Your task to perform on an android device: Open Chrome and go to settings Image 0: 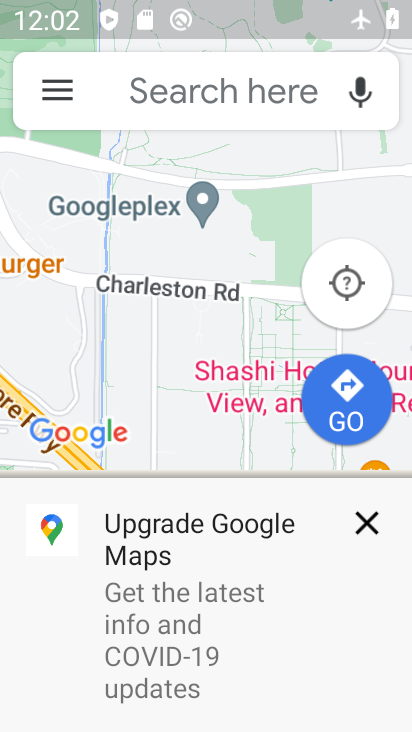
Step 0: press home button
Your task to perform on an android device: Open Chrome and go to settings Image 1: 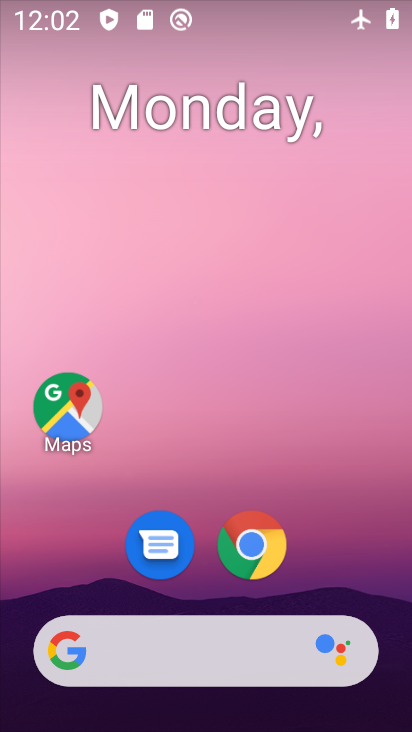
Step 1: drag from (367, 581) to (371, 176)
Your task to perform on an android device: Open Chrome and go to settings Image 2: 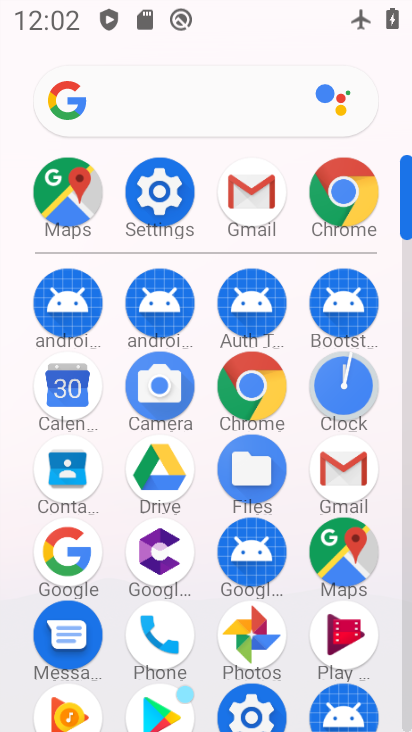
Step 2: click (273, 395)
Your task to perform on an android device: Open Chrome and go to settings Image 3: 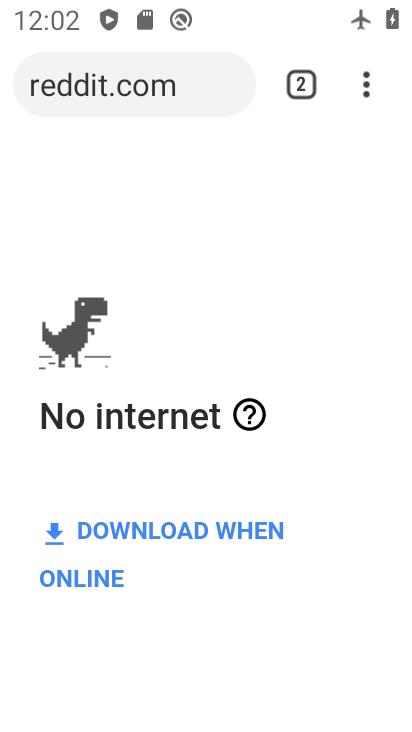
Step 3: click (361, 91)
Your task to perform on an android device: Open Chrome and go to settings Image 4: 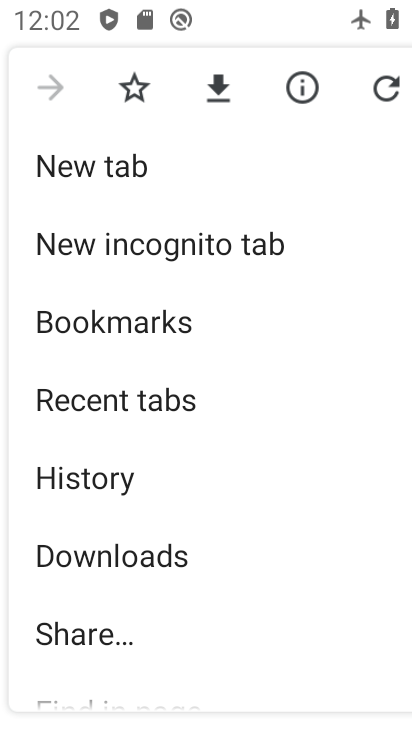
Step 4: drag from (344, 467) to (347, 406)
Your task to perform on an android device: Open Chrome and go to settings Image 5: 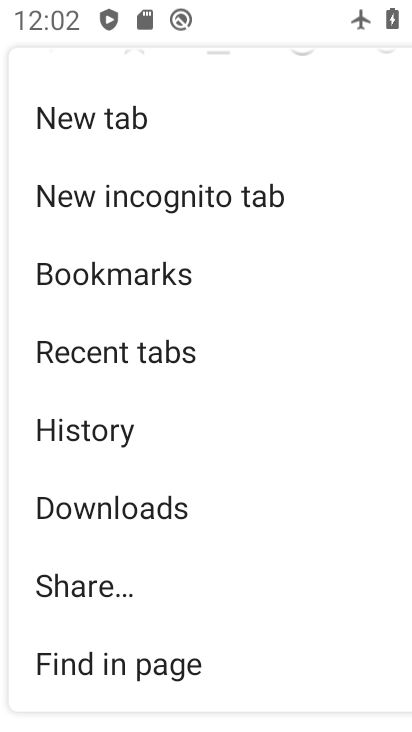
Step 5: drag from (331, 538) to (340, 438)
Your task to perform on an android device: Open Chrome and go to settings Image 6: 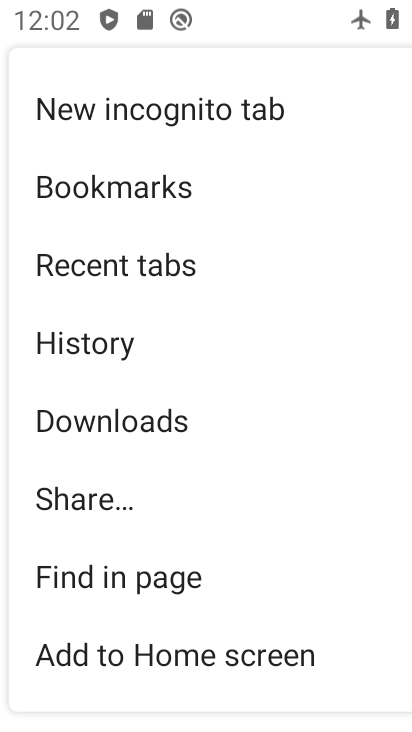
Step 6: drag from (321, 591) to (332, 449)
Your task to perform on an android device: Open Chrome and go to settings Image 7: 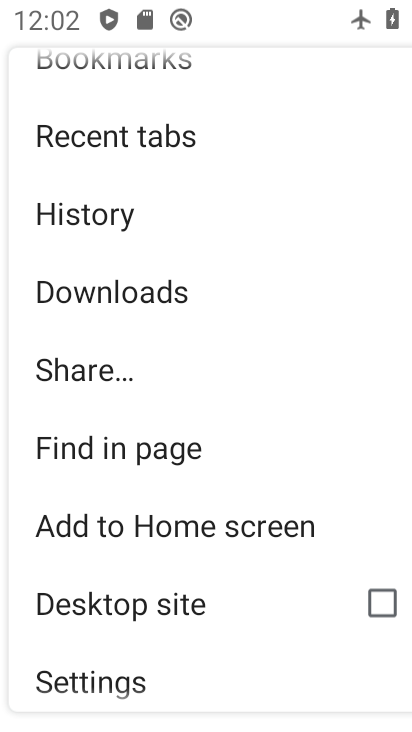
Step 7: drag from (301, 610) to (317, 476)
Your task to perform on an android device: Open Chrome and go to settings Image 8: 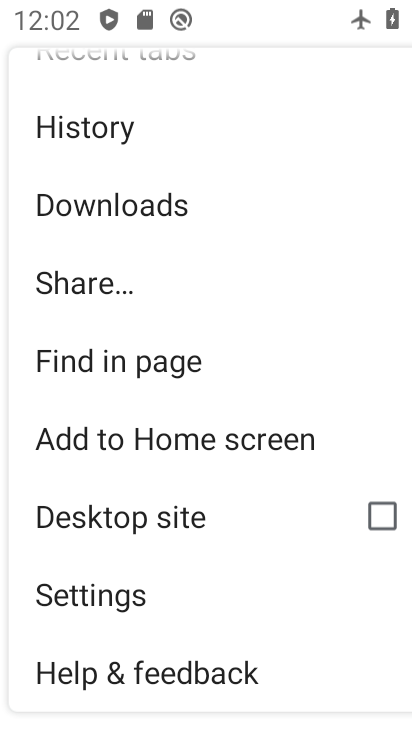
Step 8: drag from (282, 581) to (292, 411)
Your task to perform on an android device: Open Chrome and go to settings Image 9: 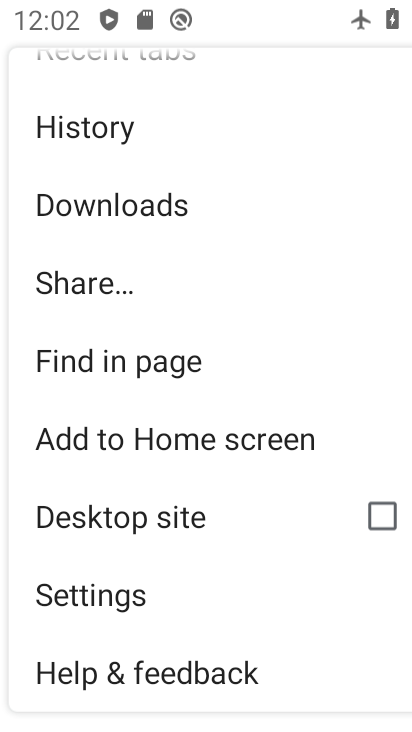
Step 9: click (176, 611)
Your task to perform on an android device: Open Chrome and go to settings Image 10: 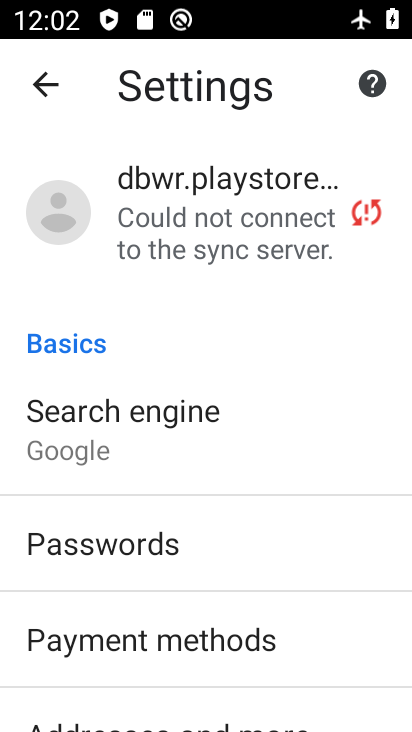
Step 10: task complete